Your task to perform on an android device: Open Google Chrome and open the bookmarks view Image 0: 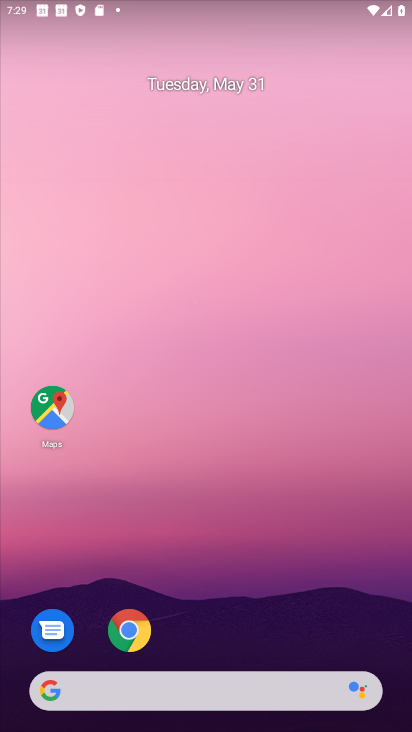
Step 0: click (128, 625)
Your task to perform on an android device: Open Google Chrome and open the bookmarks view Image 1: 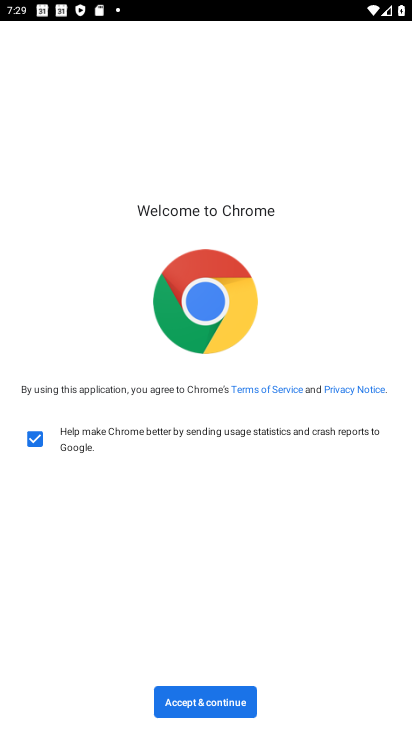
Step 1: click (198, 704)
Your task to perform on an android device: Open Google Chrome and open the bookmarks view Image 2: 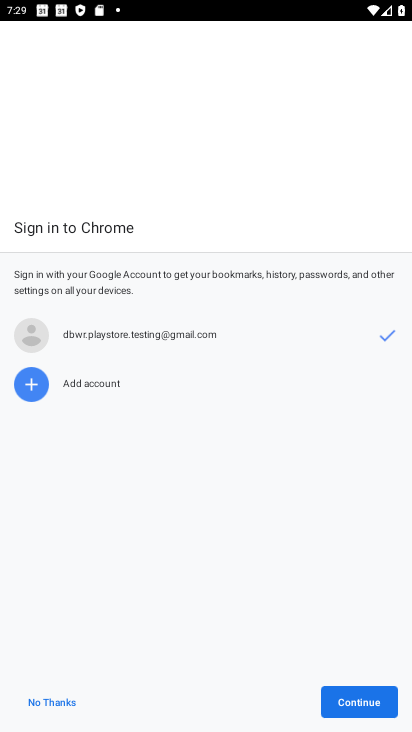
Step 2: click (362, 706)
Your task to perform on an android device: Open Google Chrome and open the bookmarks view Image 3: 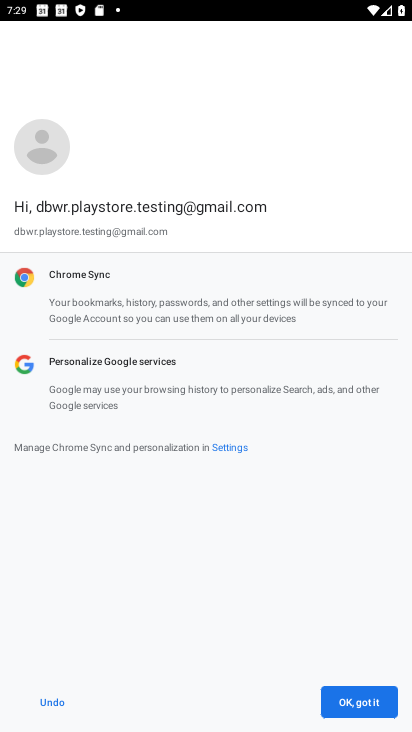
Step 3: click (356, 703)
Your task to perform on an android device: Open Google Chrome and open the bookmarks view Image 4: 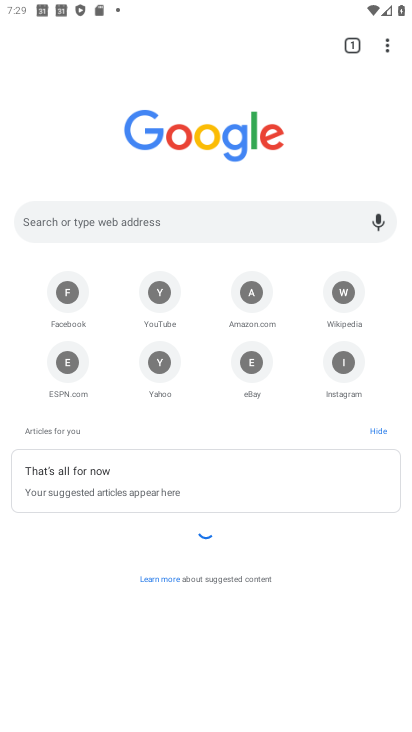
Step 4: click (392, 44)
Your task to perform on an android device: Open Google Chrome and open the bookmarks view Image 5: 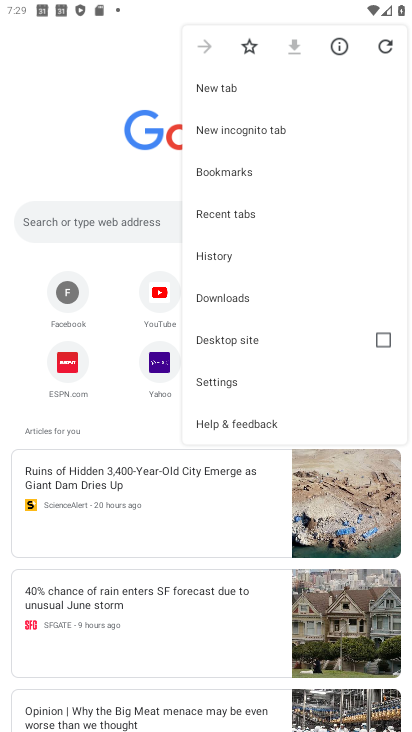
Step 5: click (248, 167)
Your task to perform on an android device: Open Google Chrome and open the bookmarks view Image 6: 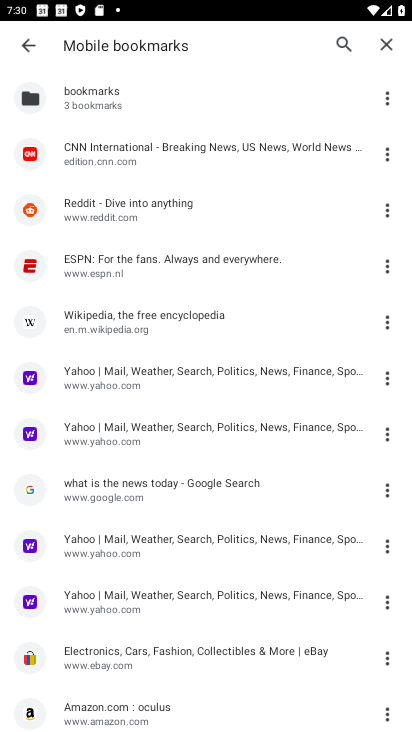
Step 6: task complete